Your task to perform on an android device: Go to Android settings Image 0: 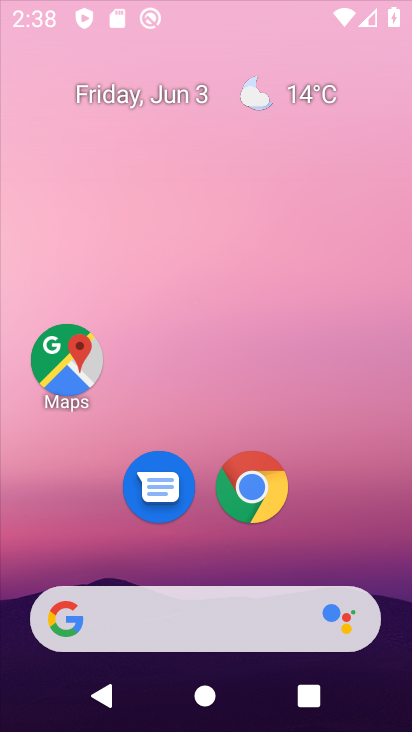
Step 0: click (252, 48)
Your task to perform on an android device: Go to Android settings Image 1: 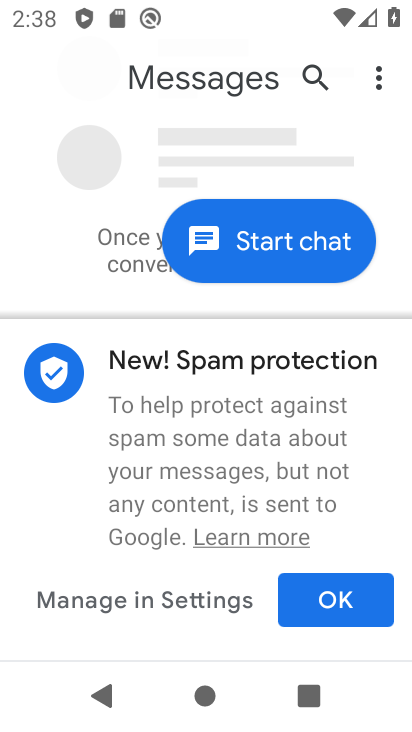
Step 1: press back button
Your task to perform on an android device: Go to Android settings Image 2: 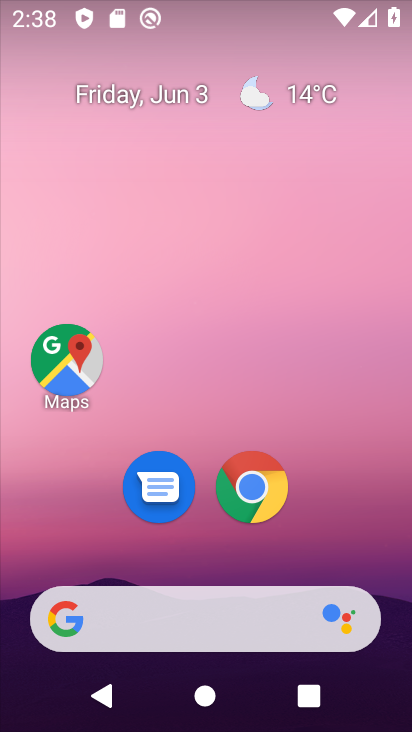
Step 2: drag from (285, 538) to (291, 68)
Your task to perform on an android device: Go to Android settings Image 3: 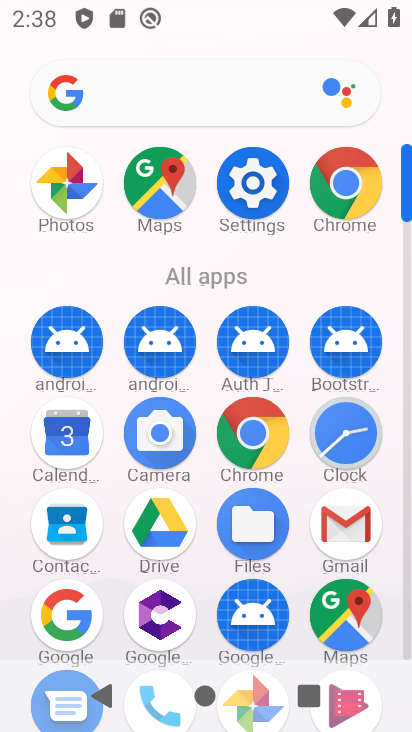
Step 3: click (252, 182)
Your task to perform on an android device: Go to Android settings Image 4: 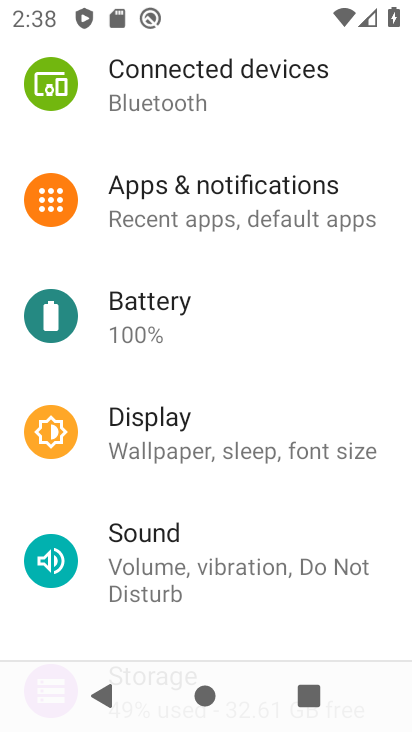
Step 4: drag from (223, 632) to (302, 75)
Your task to perform on an android device: Go to Android settings Image 5: 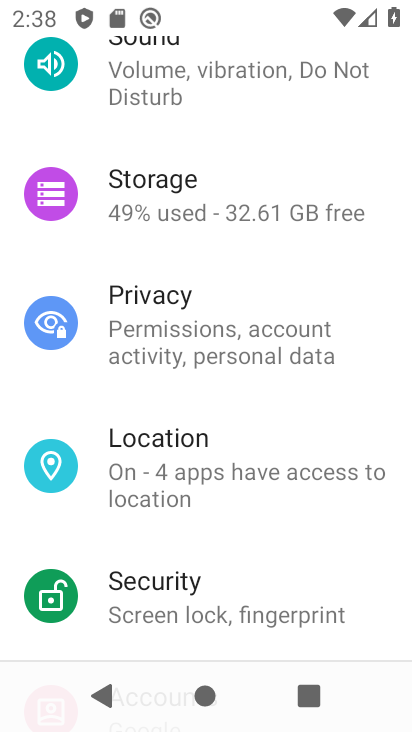
Step 5: drag from (234, 540) to (283, 28)
Your task to perform on an android device: Go to Android settings Image 6: 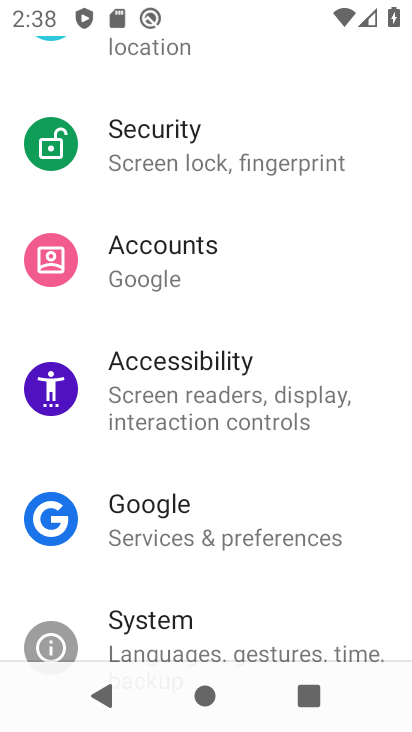
Step 6: drag from (200, 603) to (231, 36)
Your task to perform on an android device: Go to Android settings Image 7: 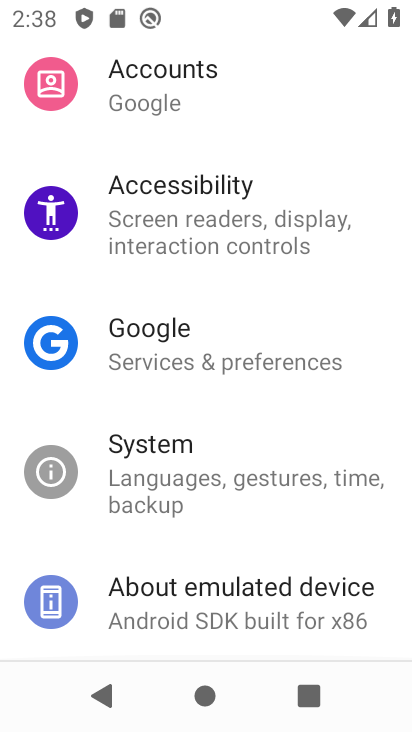
Step 7: click (175, 597)
Your task to perform on an android device: Go to Android settings Image 8: 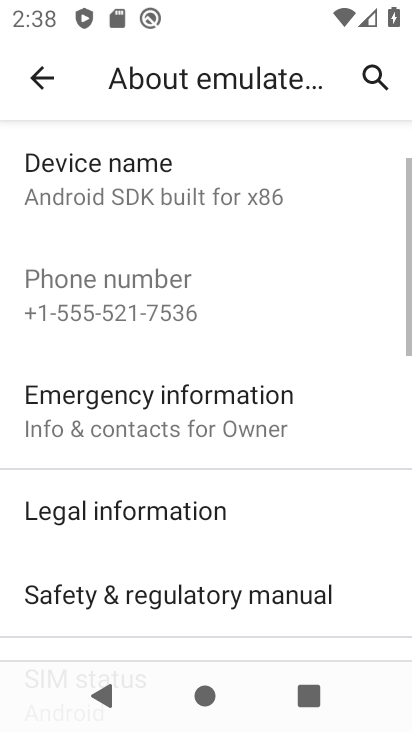
Step 8: task complete